Your task to perform on an android device: Open Maps and search for coffee Image 0: 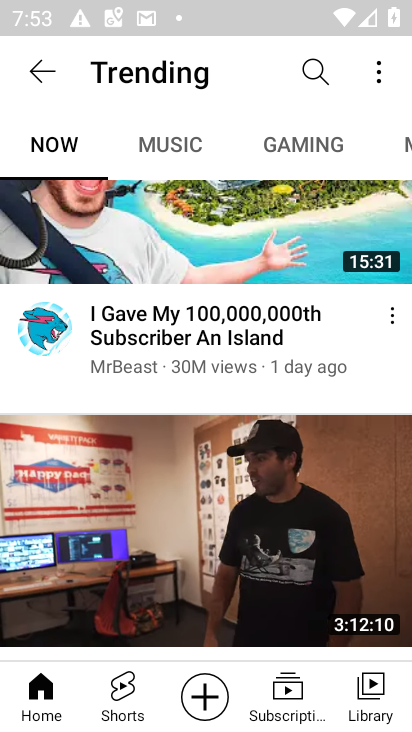
Step 0: press home button
Your task to perform on an android device: Open Maps and search for coffee Image 1: 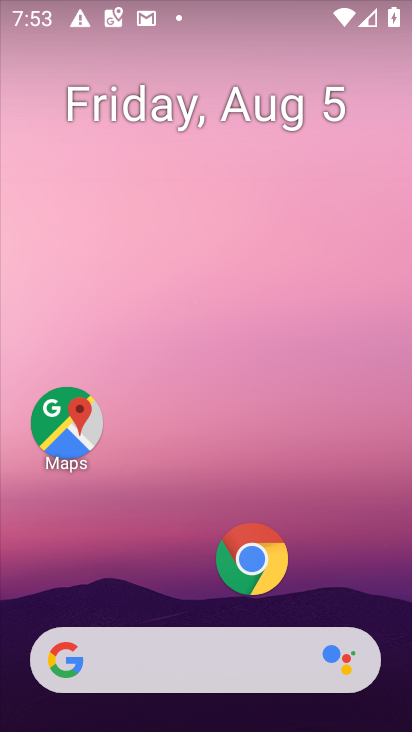
Step 1: click (74, 412)
Your task to perform on an android device: Open Maps and search for coffee Image 2: 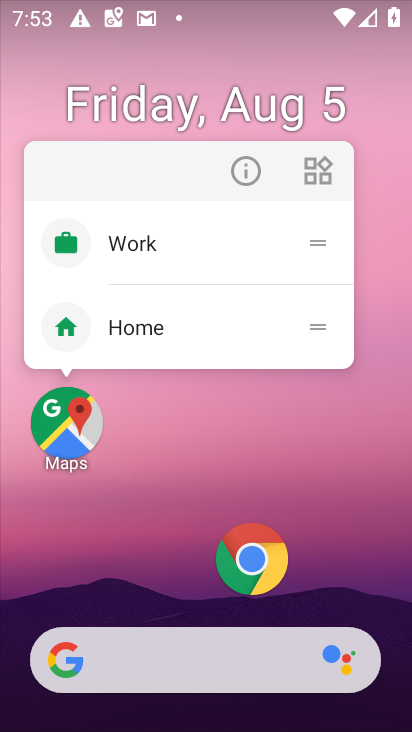
Step 2: click (93, 413)
Your task to perform on an android device: Open Maps and search for coffee Image 3: 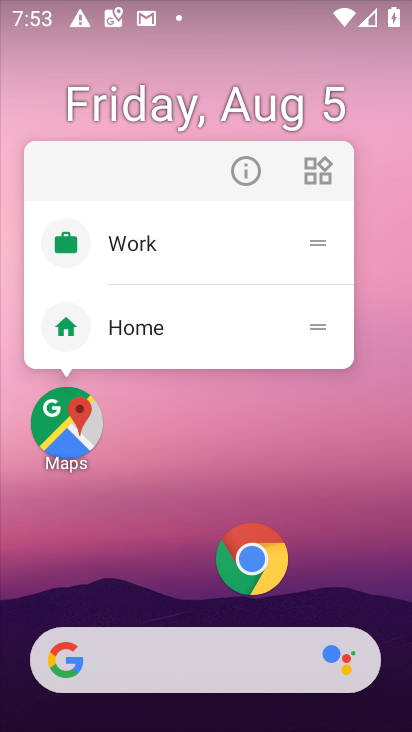
Step 3: click (93, 413)
Your task to perform on an android device: Open Maps and search for coffee Image 4: 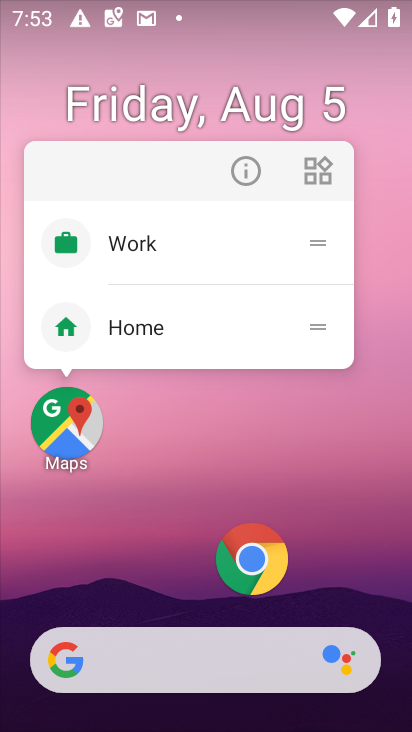
Step 4: click (59, 442)
Your task to perform on an android device: Open Maps and search for coffee Image 5: 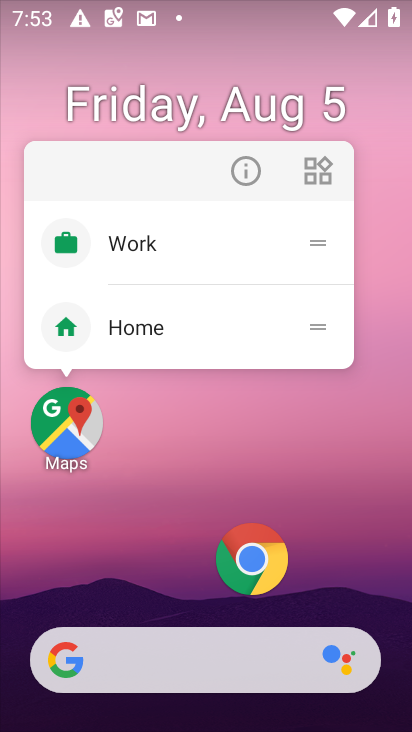
Step 5: click (62, 445)
Your task to perform on an android device: Open Maps and search for coffee Image 6: 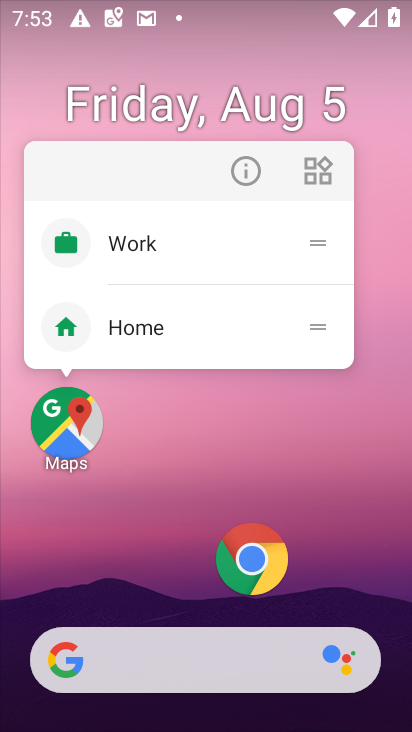
Step 6: click (62, 445)
Your task to perform on an android device: Open Maps and search for coffee Image 7: 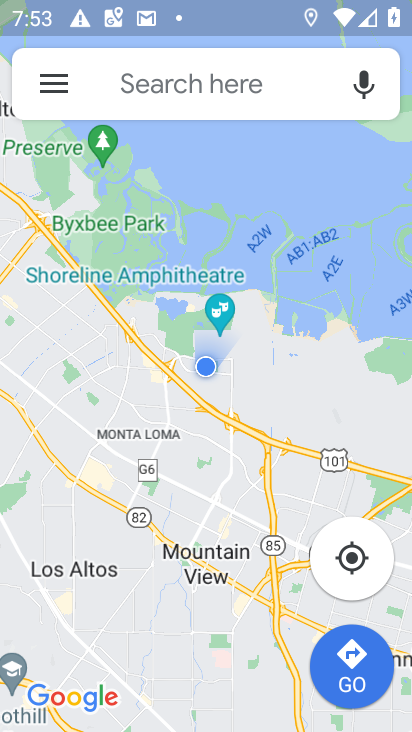
Step 7: click (149, 84)
Your task to perform on an android device: Open Maps and search for coffee Image 8: 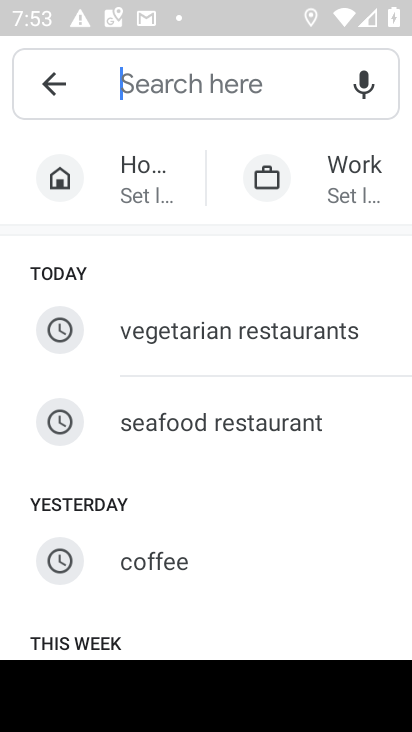
Step 8: type "coffee"
Your task to perform on an android device: Open Maps and search for coffee Image 9: 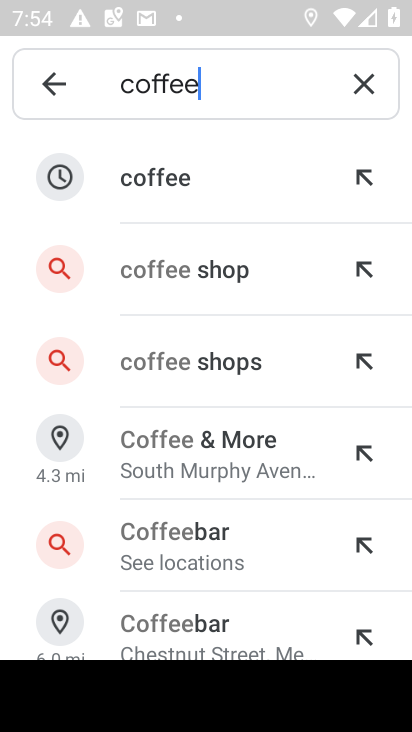
Step 9: click (139, 177)
Your task to perform on an android device: Open Maps and search for coffee Image 10: 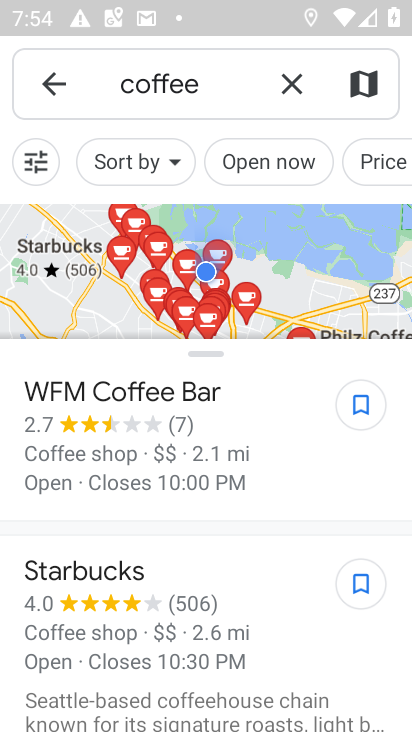
Step 10: click (300, 460)
Your task to perform on an android device: Open Maps and search for coffee Image 11: 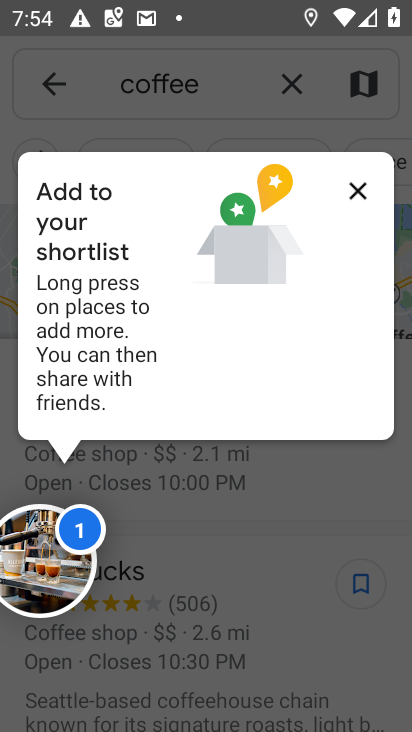
Step 11: task complete